Your task to perform on an android device: Show the shopping cart on costco. Add "jbl flip 4" to the cart on costco, then select checkout. Image 0: 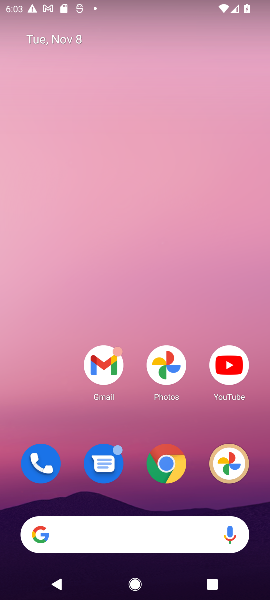
Step 0: click (156, 478)
Your task to perform on an android device: Show the shopping cart on costco. Add "jbl flip 4" to the cart on costco, then select checkout. Image 1: 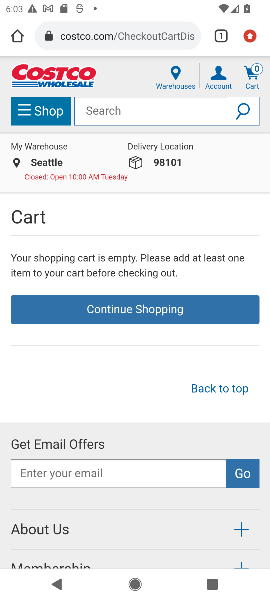
Step 1: click (150, 111)
Your task to perform on an android device: Show the shopping cart on costco. Add "jbl flip 4" to the cart on costco, then select checkout. Image 2: 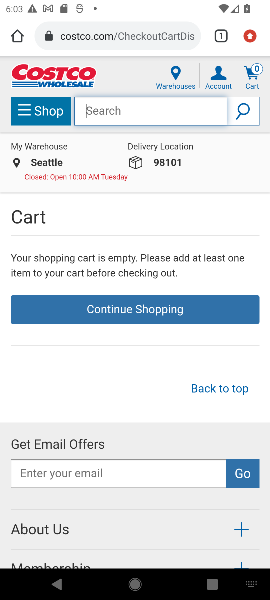
Step 2: type "jbl flip 4"
Your task to perform on an android device: Show the shopping cart on costco. Add "jbl flip 4" to the cart on costco, then select checkout. Image 3: 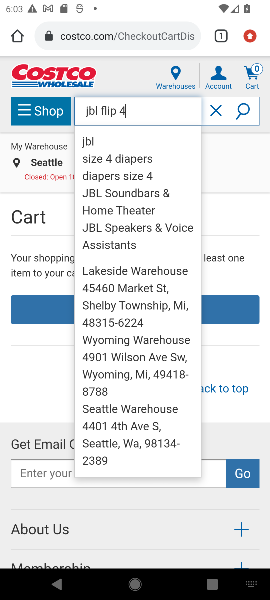
Step 3: click (248, 107)
Your task to perform on an android device: Show the shopping cart on costco. Add "jbl flip 4" to the cart on costco, then select checkout. Image 4: 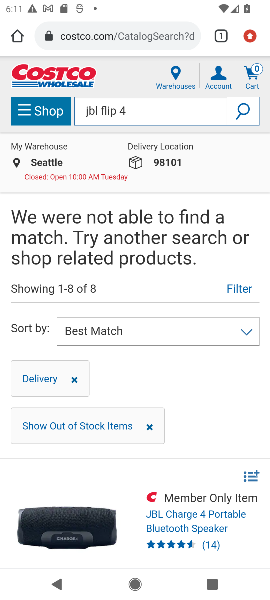
Step 4: task complete